Your task to perform on an android device: install app "Yahoo Mail" Image 0: 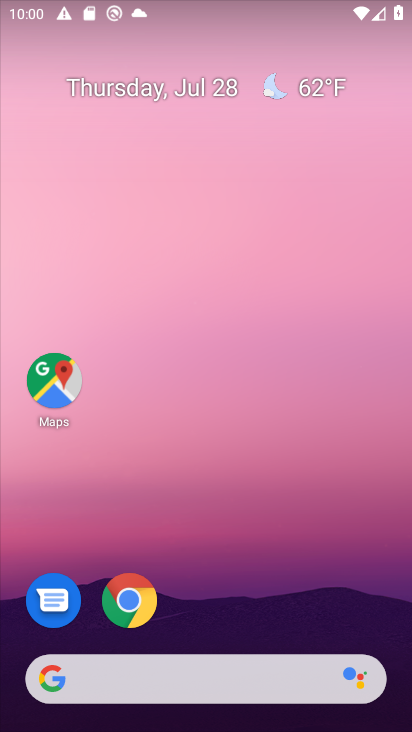
Step 0: drag from (244, 628) to (250, 36)
Your task to perform on an android device: install app "Yahoo Mail" Image 1: 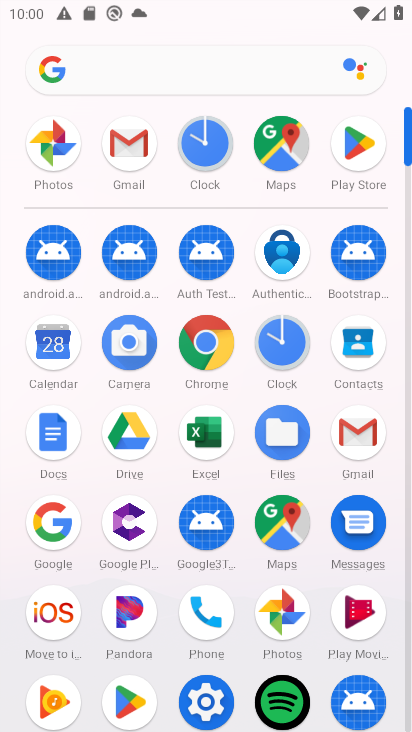
Step 1: click (349, 147)
Your task to perform on an android device: install app "Yahoo Mail" Image 2: 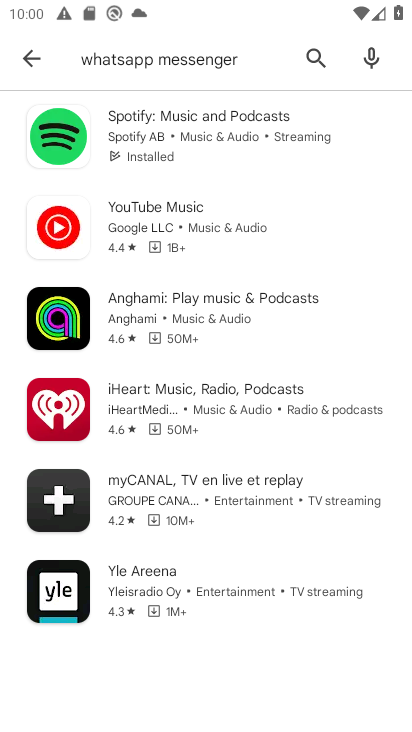
Step 2: click (317, 52)
Your task to perform on an android device: install app "Yahoo Mail" Image 3: 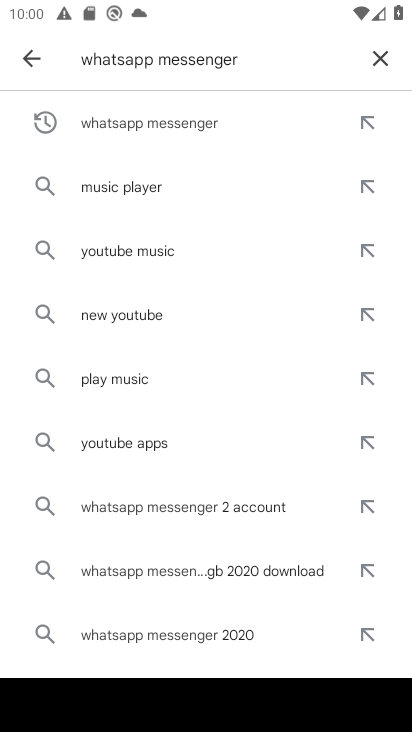
Step 3: click (370, 63)
Your task to perform on an android device: install app "Yahoo Mail" Image 4: 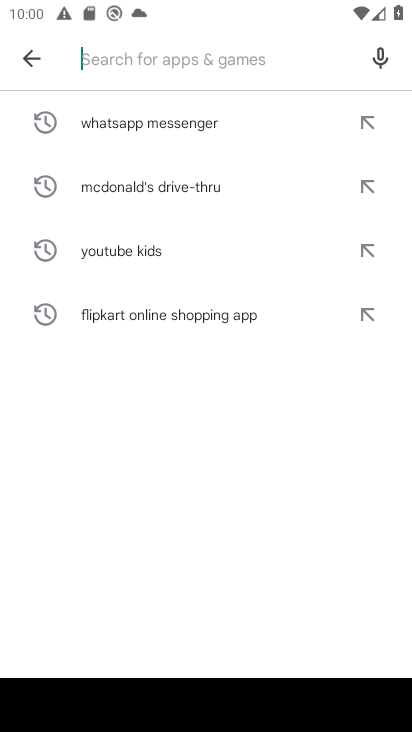
Step 4: type "Yahoo Mail"
Your task to perform on an android device: install app "Yahoo Mail" Image 5: 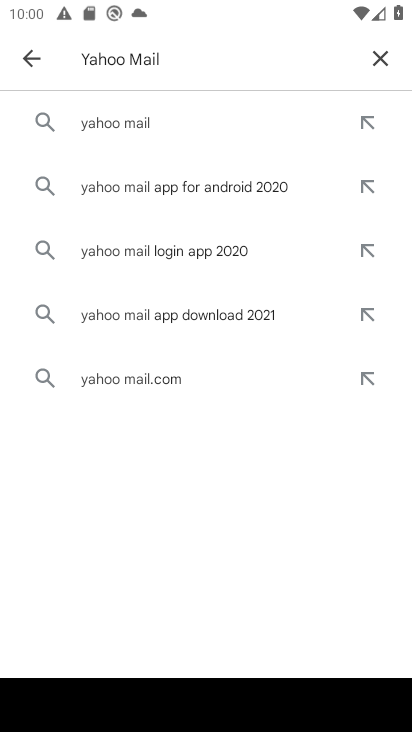
Step 5: click (135, 120)
Your task to perform on an android device: install app "Yahoo Mail" Image 6: 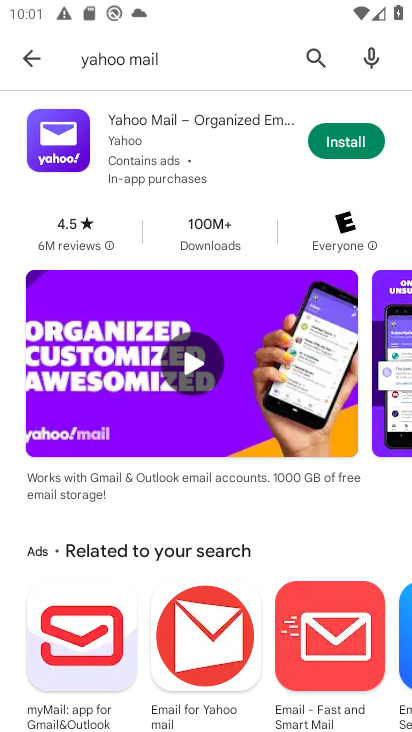
Step 6: click (352, 148)
Your task to perform on an android device: install app "Yahoo Mail" Image 7: 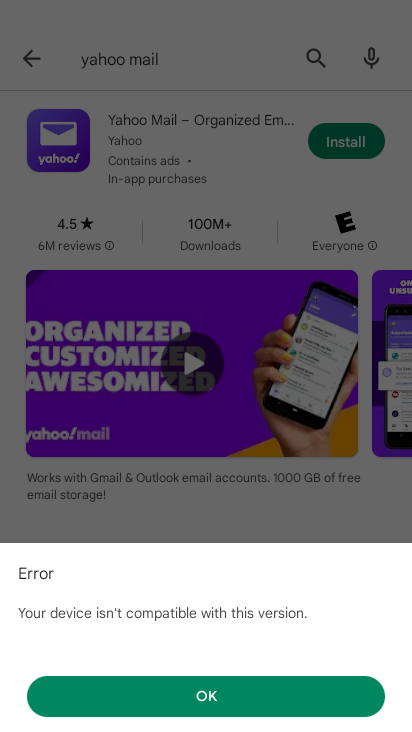
Step 7: click (196, 691)
Your task to perform on an android device: install app "Yahoo Mail" Image 8: 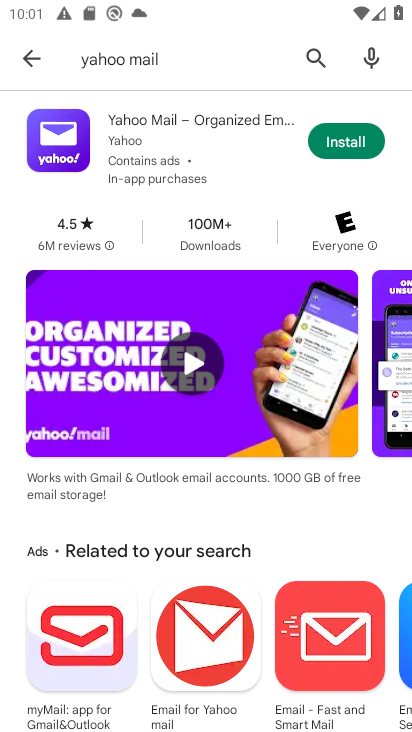
Step 8: click (345, 151)
Your task to perform on an android device: install app "Yahoo Mail" Image 9: 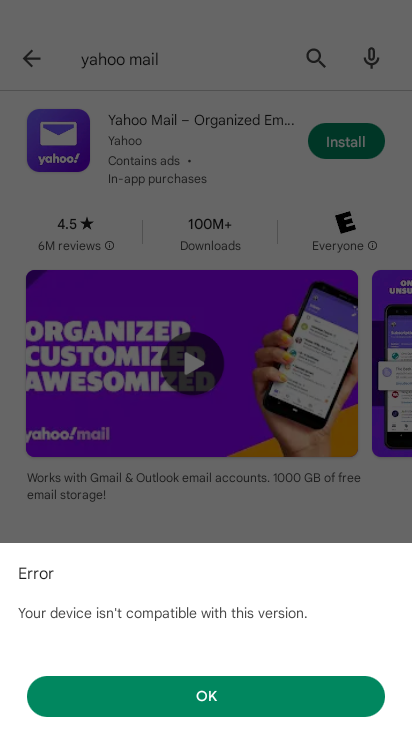
Step 9: task complete